Your task to perform on an android device: turn vacation reply on in the gmail app Image 0: 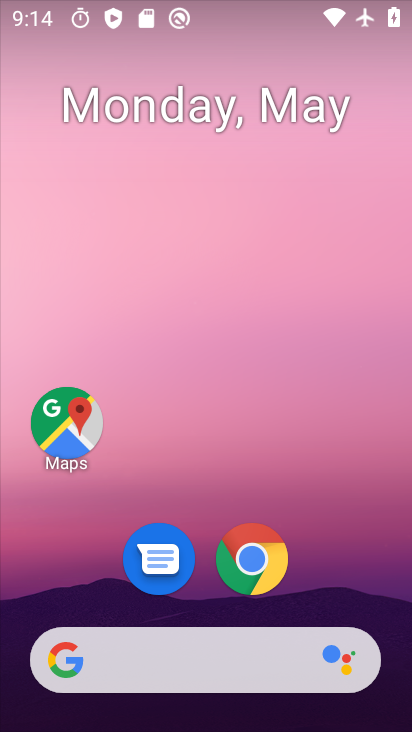
Step 0: drag from (314, 608) to (295, 4)
Your task to perform on an android device: turn vacation reply on in the gmail app Image 1: 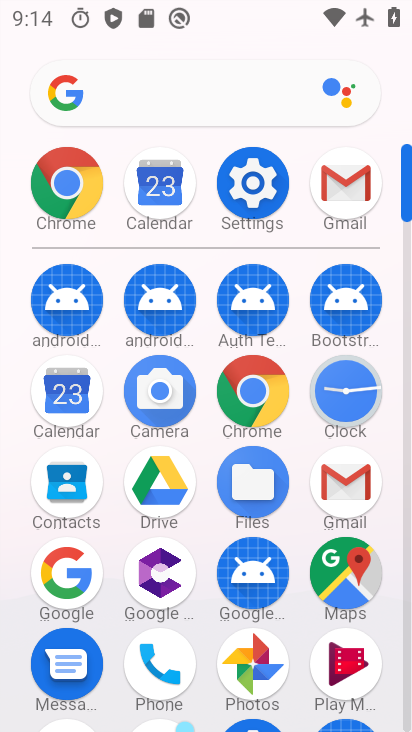
Step 1: click (336, 477)
Your task to perform on an android device: turn vacation reply on in the gmail app Image 2: 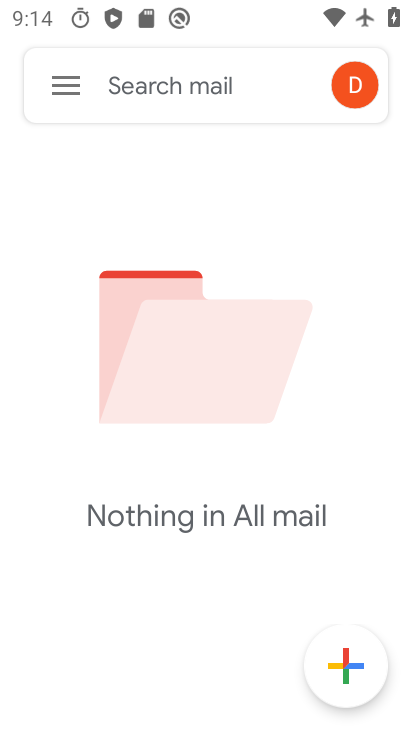
Step 2: click (60, 88)
Your task to perform on an android device: turn vacation reply on in the gmail app Image 3: 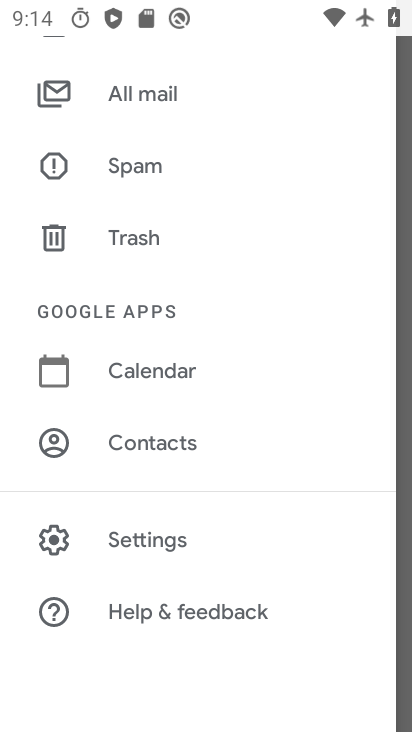
Step 3: click (158, 542)
Your task to perform on an android device: turn vacation reply on in the gmail app Image 4: 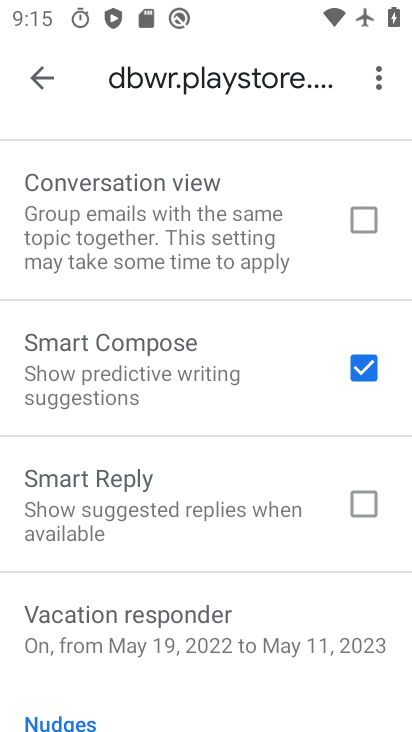
Step 4: click (140, 635)
Your task to perform on an android device: turn vacation reply on in the gmail app Image 5: 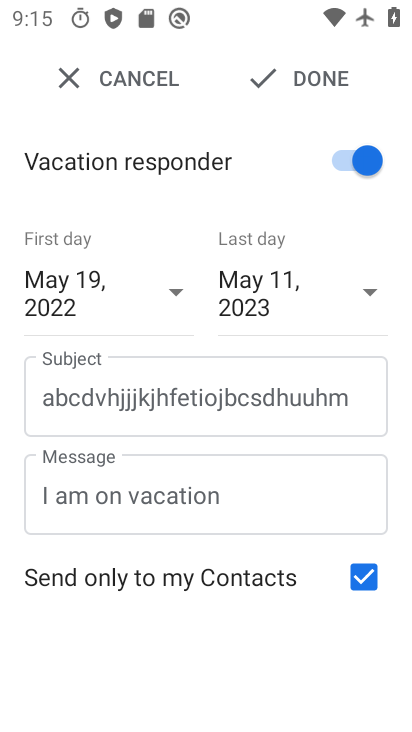
Step 5: click (310, 71)
Your task to perform on an android device: turn vacation reply on in the gmail app Image 6: 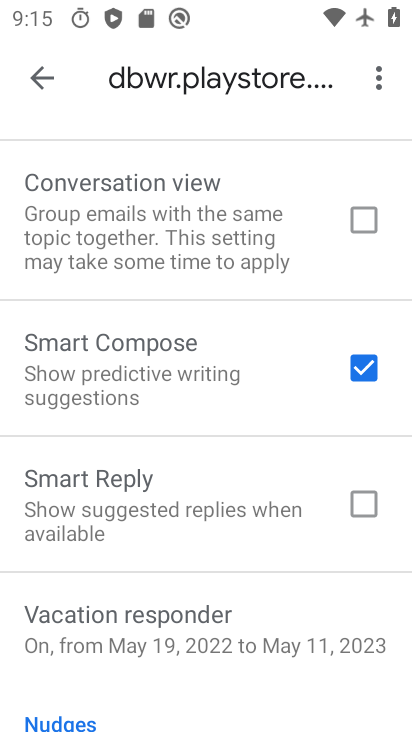
Step 6: task complete